Your task to perform on an android device: check battery use Image 0: 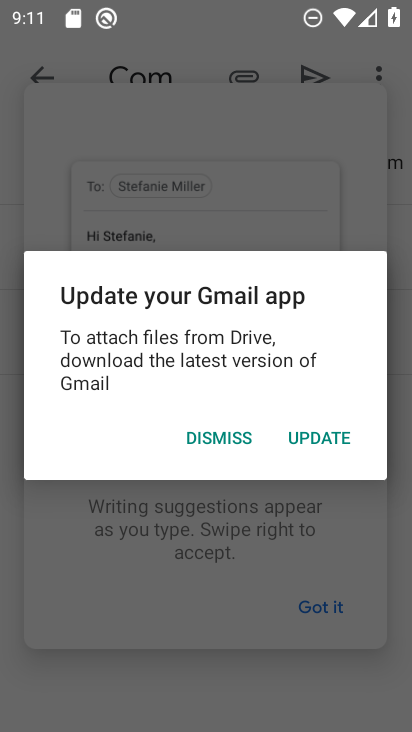
Step 0: press home button
Your task to perform on an android device: check battery use Image 1: 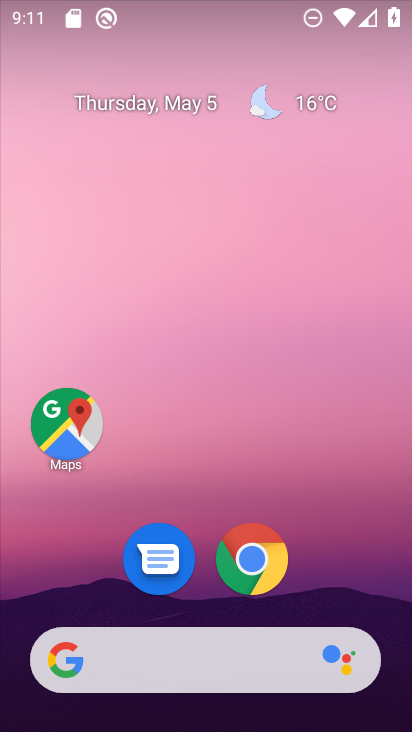
Step 1: drag from (331, 605) to (295, 13)
Your task to perform on an android device: check battery use Image 2: 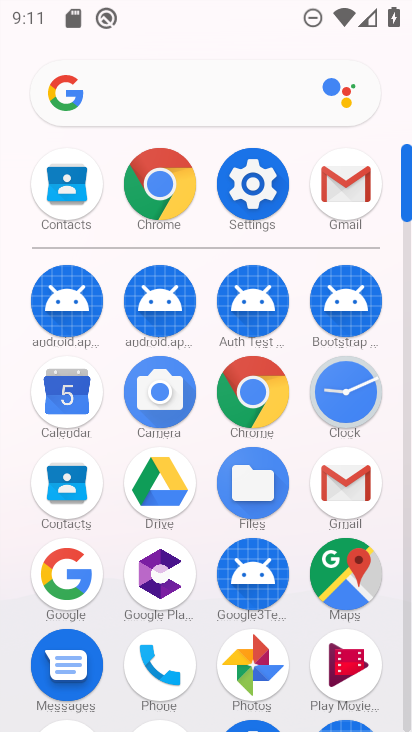
Step 2: click (253, 187)
Your task to perform on an android device: check battery use Image 3: 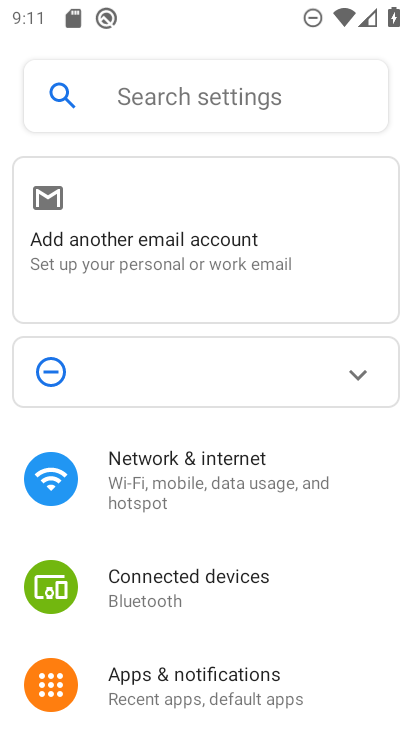
Step 3: drag from (369, 610) to (340, 200)
Your task to perform on an android device: check battery use Image 4: 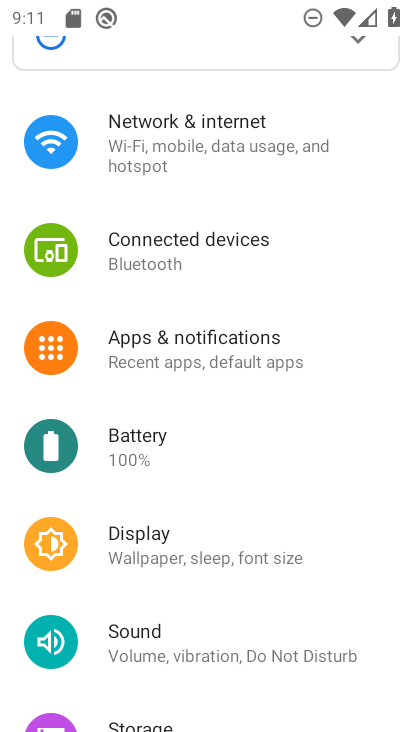
Step 4: click (124, 454)
Your task to perform on an android device: check battery use Image 5: 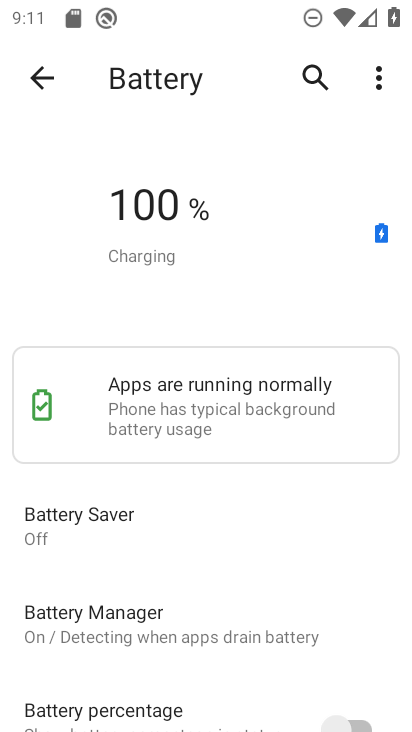
Step 5: task complete